Your task to perform on an android device: Open Reddit.com Image 0: 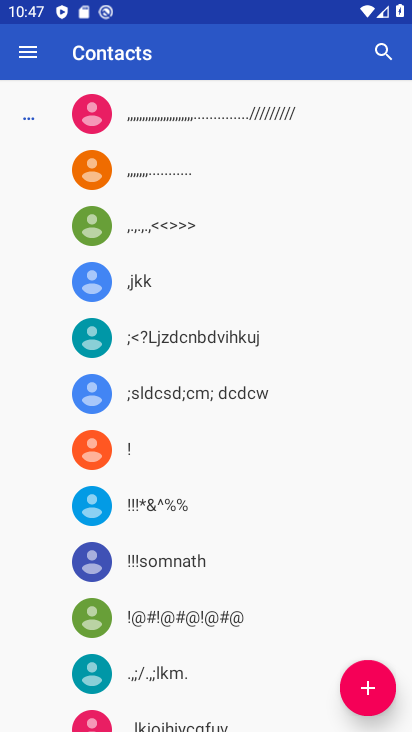
Step 0: drag from (177, 728) to (167, 401)
Your task to perform on an android device: Open Reddit.com Image 1: 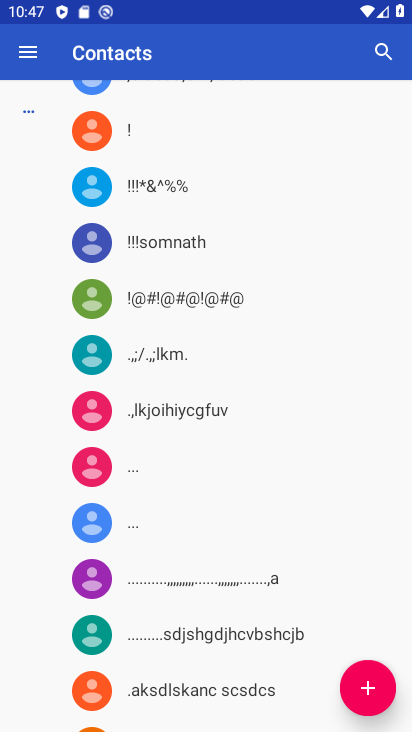
Step 1: press back button
Your task to perform on an android device: Open Reddit.com Image 2: 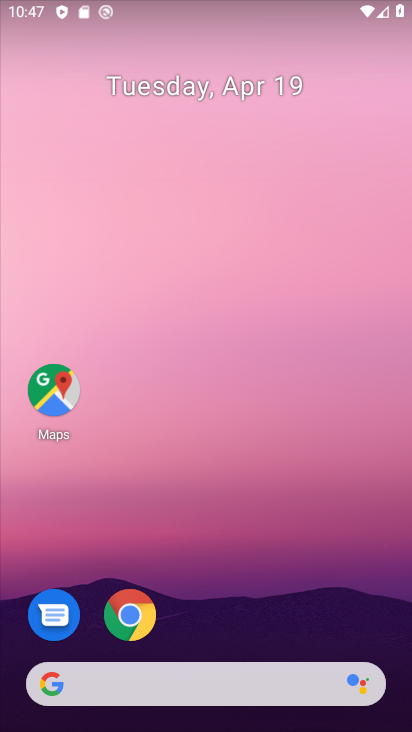
Step 2: drag from (193, 654) to (199, 408)
Your task to perform on an android device: Open Reddit.com Image 3: 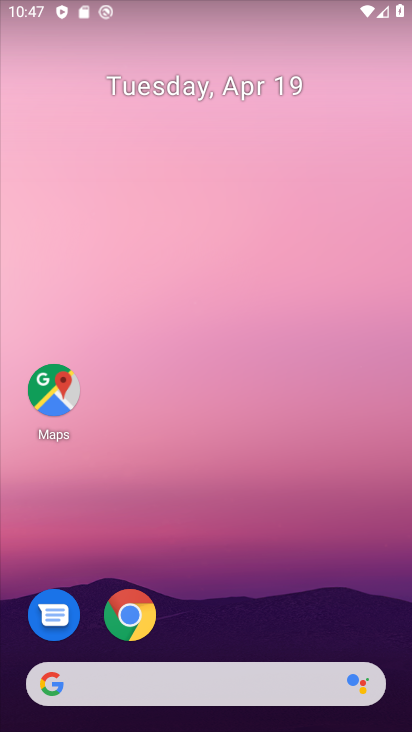
Step 3: drag from (206, 520) to (215, 258)
Your task to perform on an android device: Open Reddit.com Image 4: 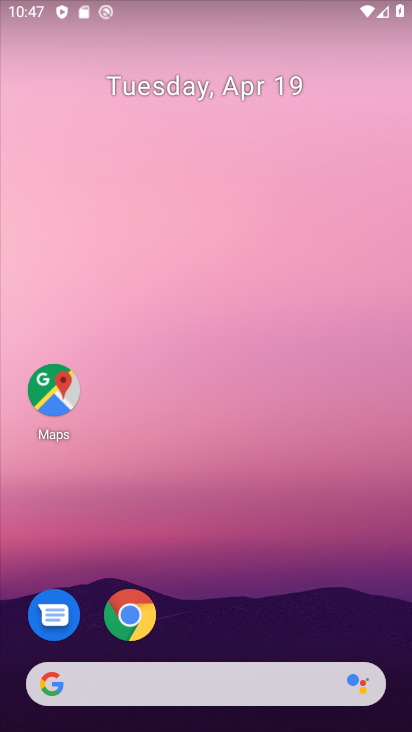
Step 4: drag from (214, 650) to (214, 216)
Your task to perform on an android device: Open Reddit.com Image 5: 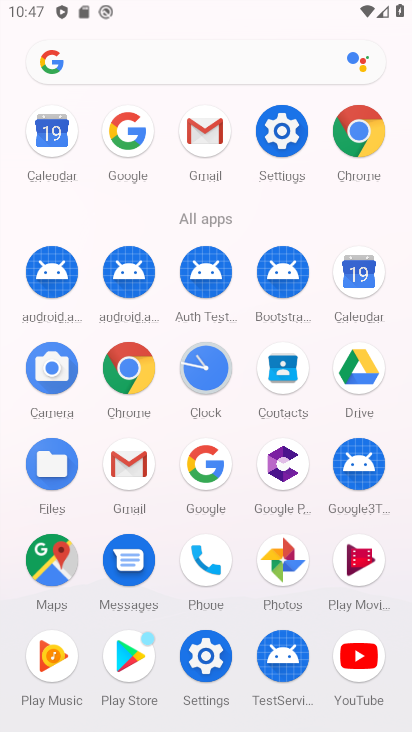
Step 5: click (119, 367)
Your task to perform on an android device: Open Reddit.com Image 6: 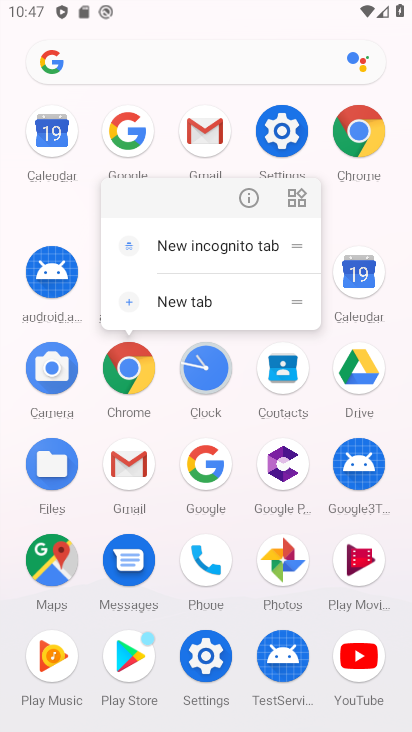
Step 6: click (129, 367)
Your task to perform on an android device: Open Reddit.com Image 7: 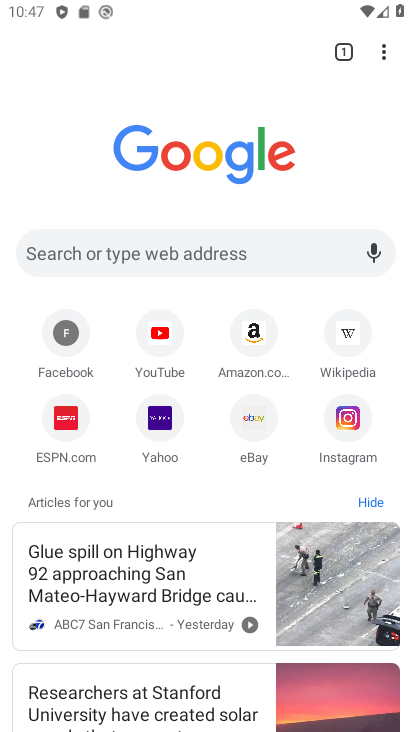
Step 7: click (138, 253)
Your task to perform on an android device: Open Reddit.com Image 8: 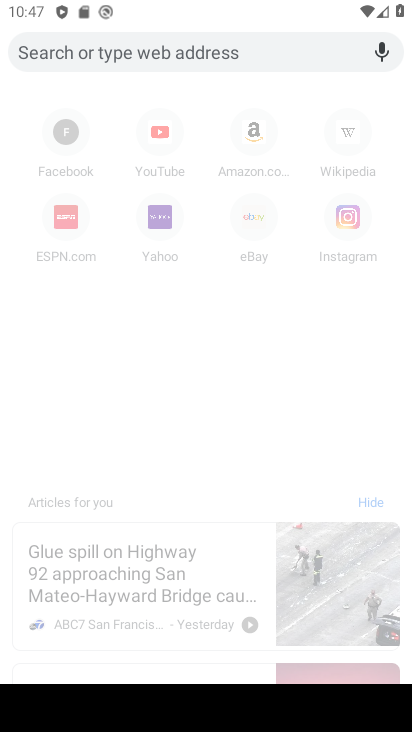
Step 8: type "reddit.com"
Your task to perform on an android device: Open Reddit.com Image 9: 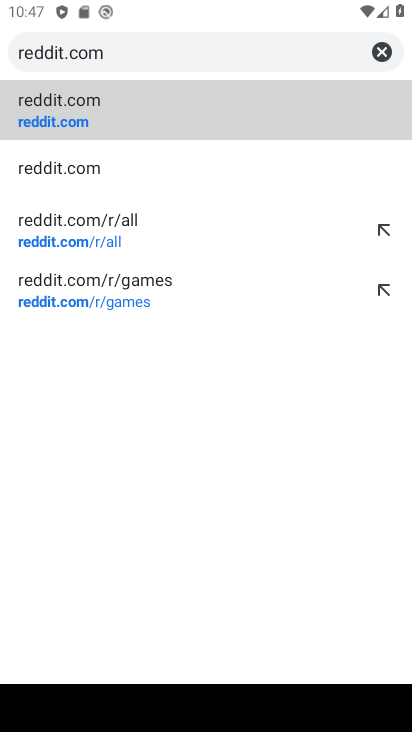
Step 9: click (99, 167)
Your task to perform on an android device: Open Reddit.com Image 10: 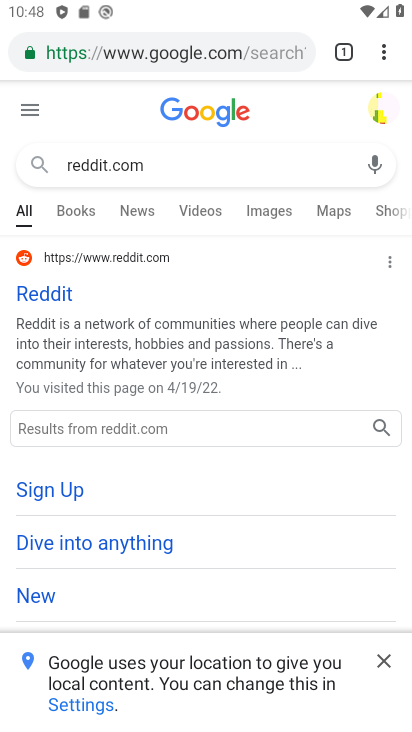
Step 10: click (51, 300)
Your task to perform on an android device: Open Reddit.com Image 11: 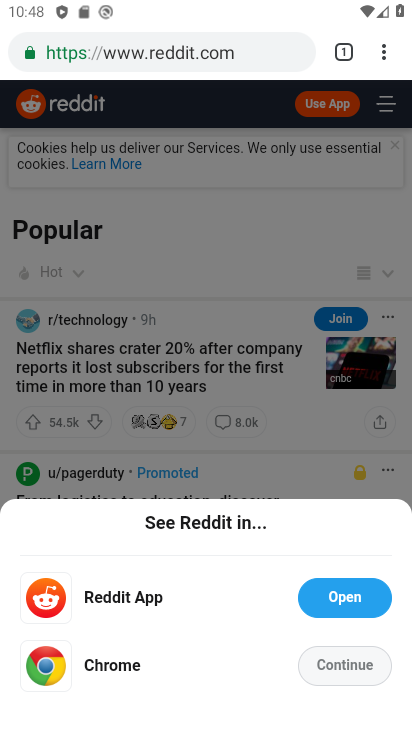
Step 11: task complete